Your task to perform on an android device: Go to battery settings Image 0: 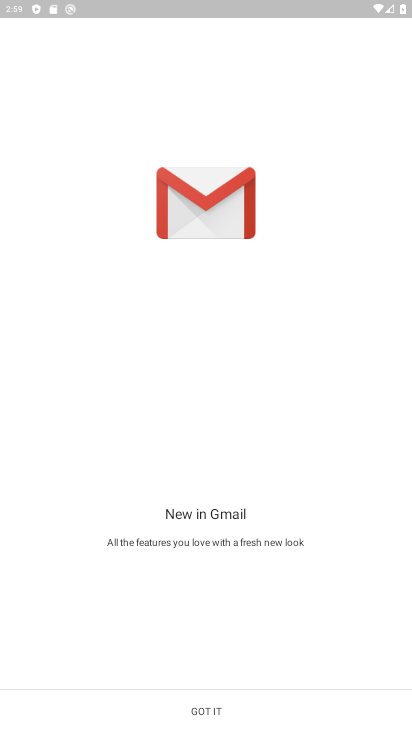
Step 0: press home button
Your task to perform on an android device: Go to battery settings Image 1: 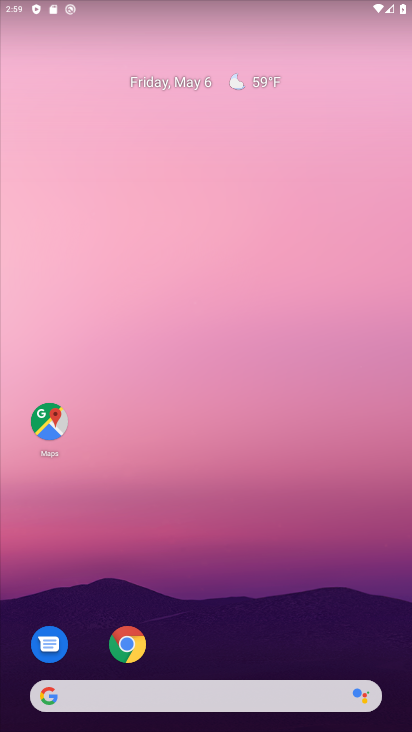
Step 1: drag from (210, 715) to (210, 263)
Your task to perform on an android device: Go to battery settings Image 2: 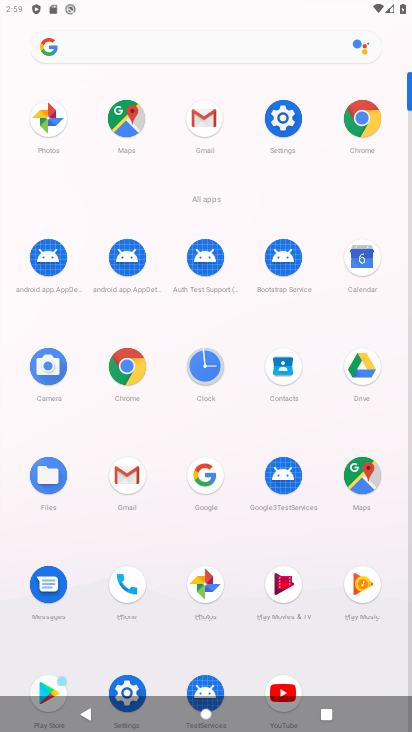
Step 2: click (279, 117)
Your task to perform on an android device: Go to battery settings Image 3: 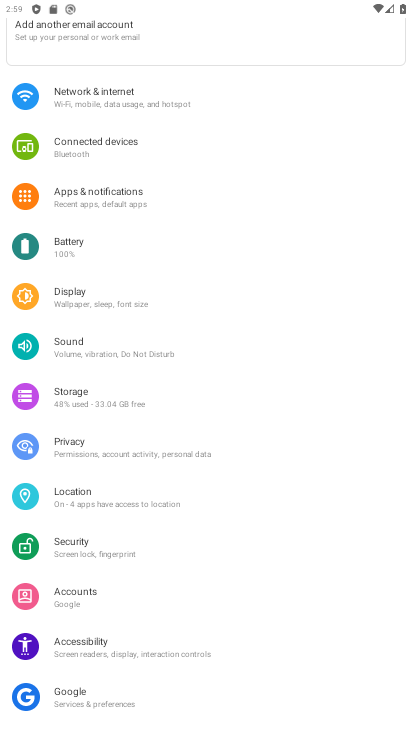
Step 3: click (86, 247)
Your task to perform on an android device: Go to battery settings Image 4: 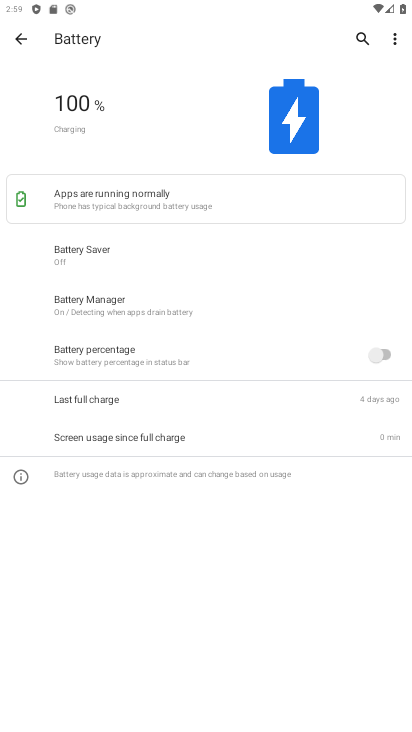
Step 4: task complete